Your task to perform on an android device: Open eBay Image 0: 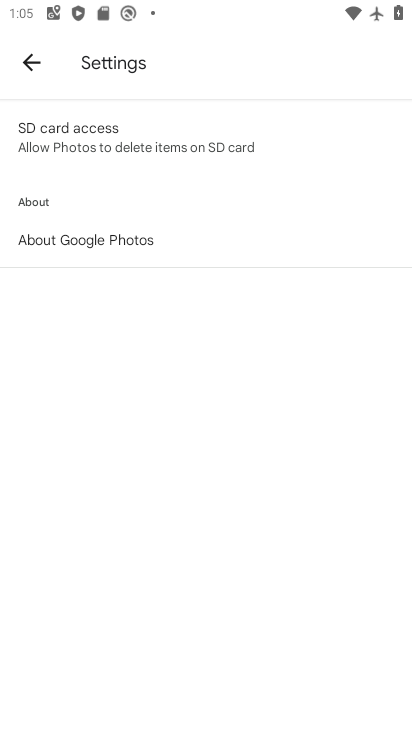
Step 0: press home button
Your task to perform on an android device: Open eBay Image 1: 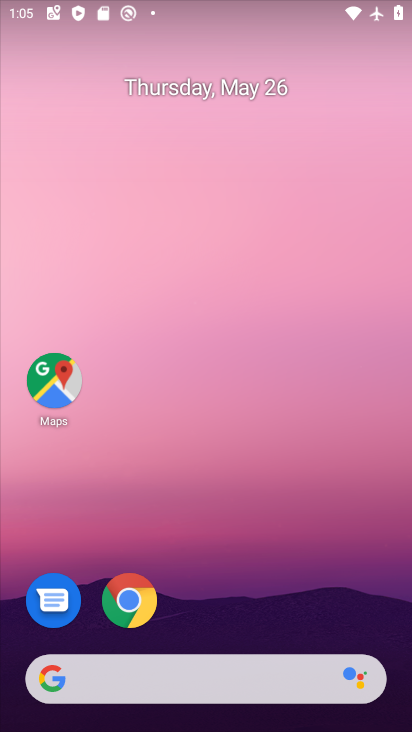
Step 1: drag from (260, 606) to (175, 122)
Your task to perform on an android device: Open eBay Image 2: 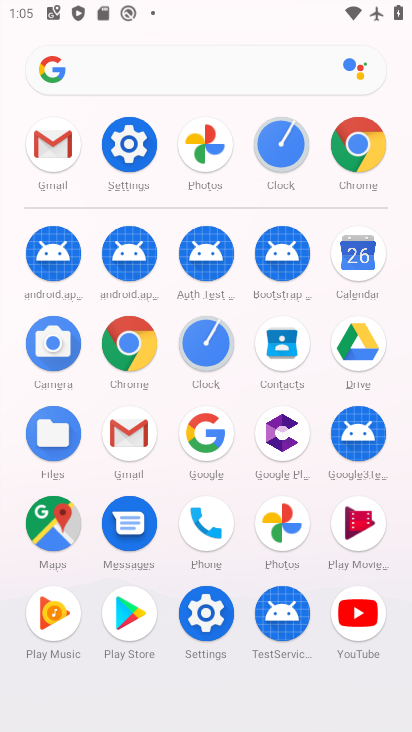
Step 2: click (127, 347)
Your task to perform on an android device: Open eBay Image 3: 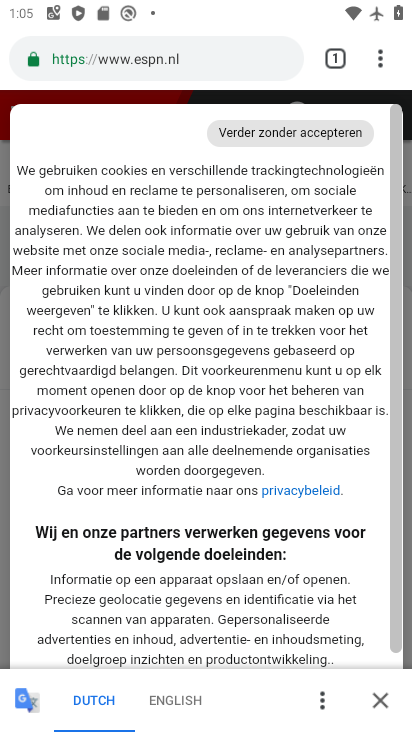
Step 3: click (164, 61)
Your task to perform on an android device: Open eBay Image 4: 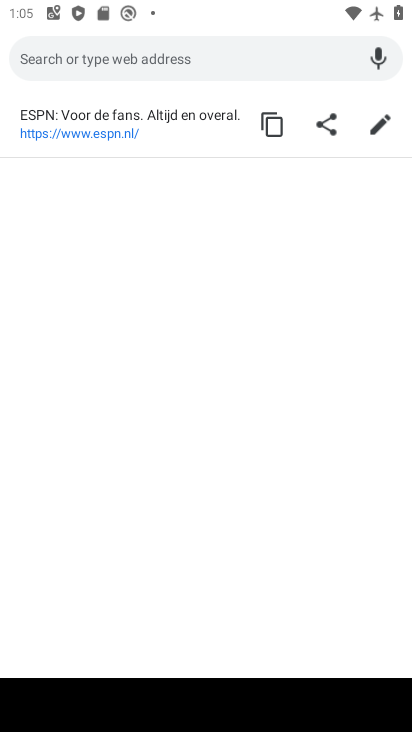
Step 4: type "ebay"
Your task to perform on an android device: Open eBay Image 5: 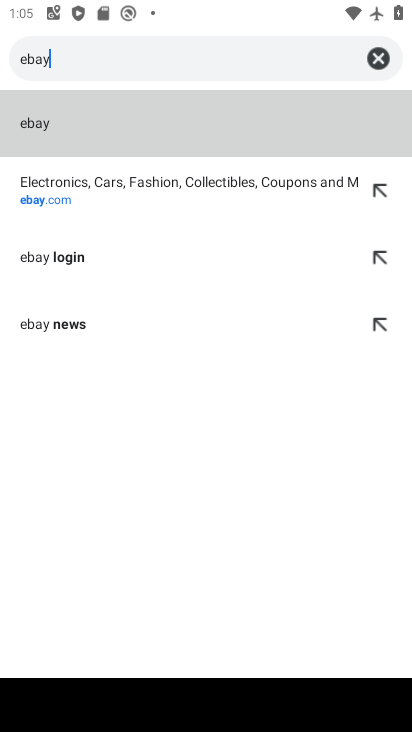
Step 5: click (53, 202)
Your task to perform on an android device: Open eBay Image 6: 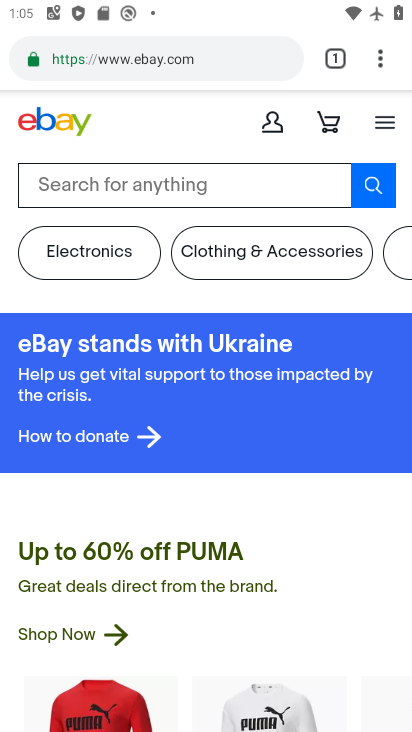
Step 6: task complete